Your task to perform on an android device: Open calendar and show me the third week of next month Image 0: 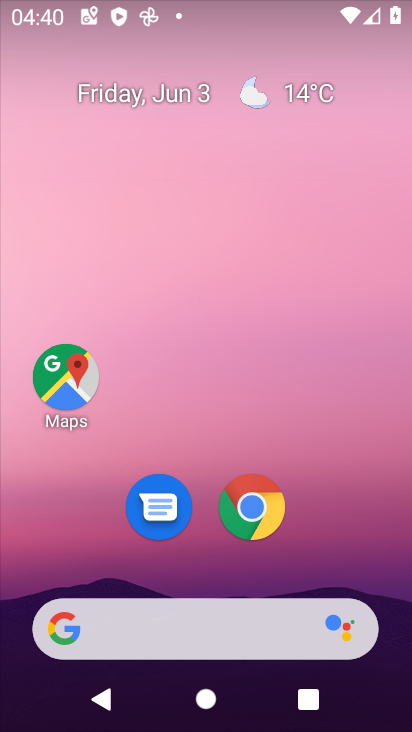
Step 0: press home button
Your task to perform on an android device: Open calendar and show me the third week of next month Image 1: 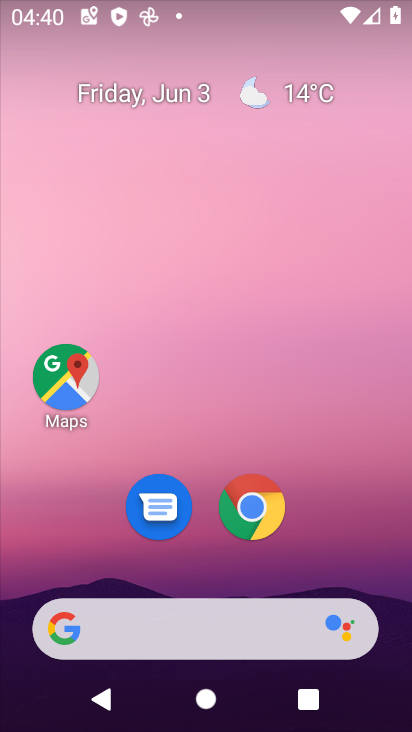
Step 1: drag from (368, 583) to (321, 89)
Your task to perform on an android device: Open calendar and show me the third week of next month Image 2: 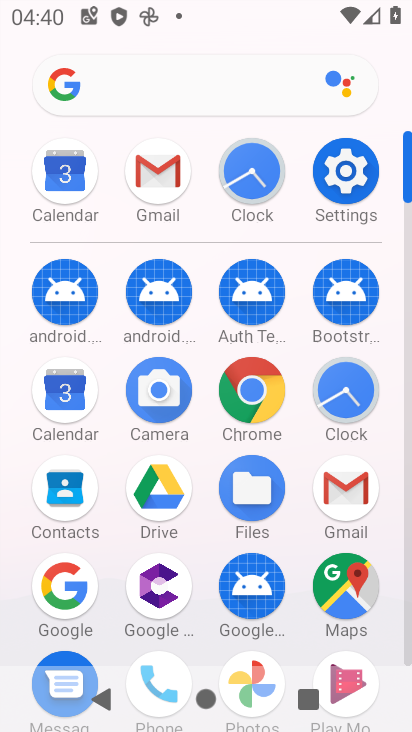
Step 2: click (67, 391)
Your task to perform on an android device: Open calendar and show me the third week of next month Image 3: 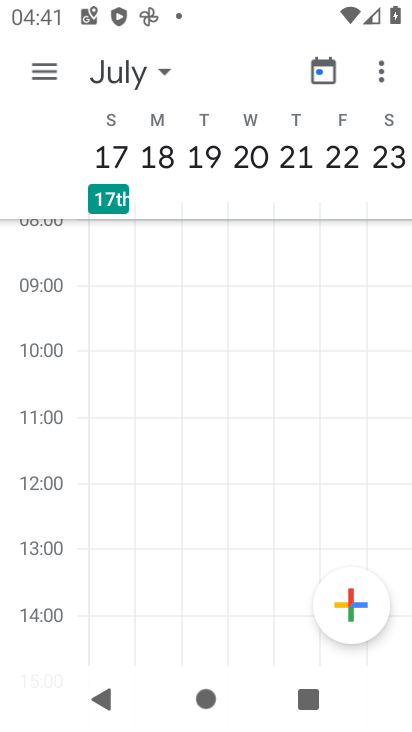
Step 3: click (40, 71)
Your task to perform on an android device: Open calendar and show me the third week of next month Image 4: 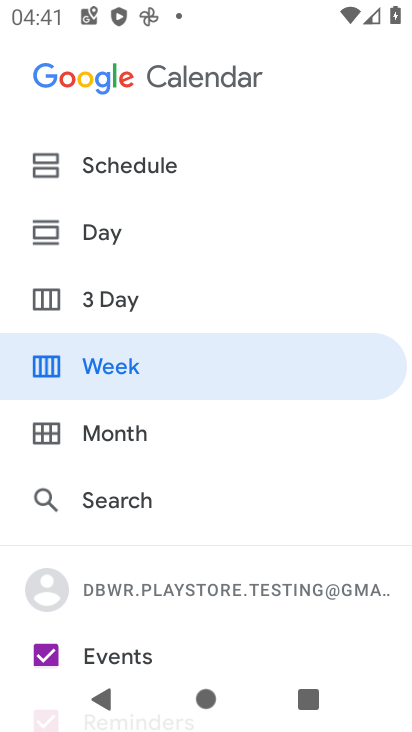
Step 4: click (140, 433)
Your task to perform on an android device: Open calendar and show me the third week of next month Image 5: 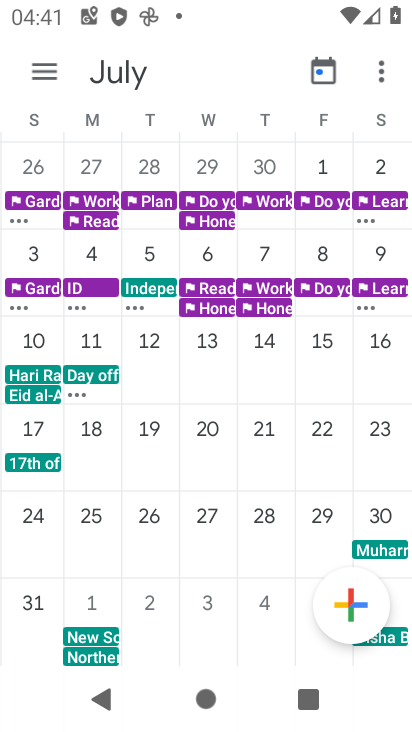
Step 5: drag from (307, 390) to (7, 373)
Your task to perform on an android device: Open calendar and show me the third week of next month Image 6: 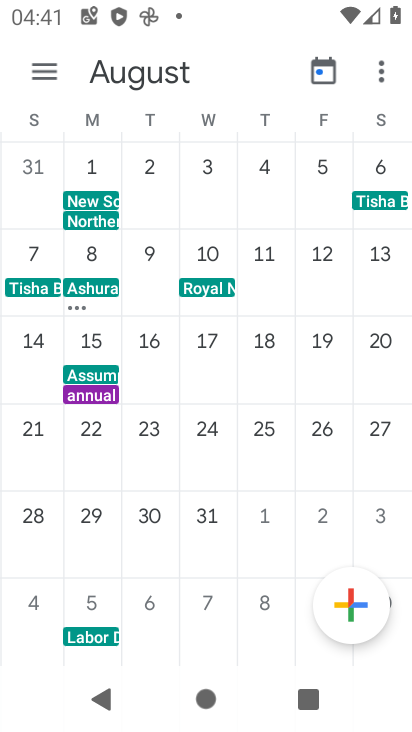
Step 6: drag from (36, 347) to (368, 341)
Your task to perform on an android device: Open calendar and show me the third week of next month Image 7: 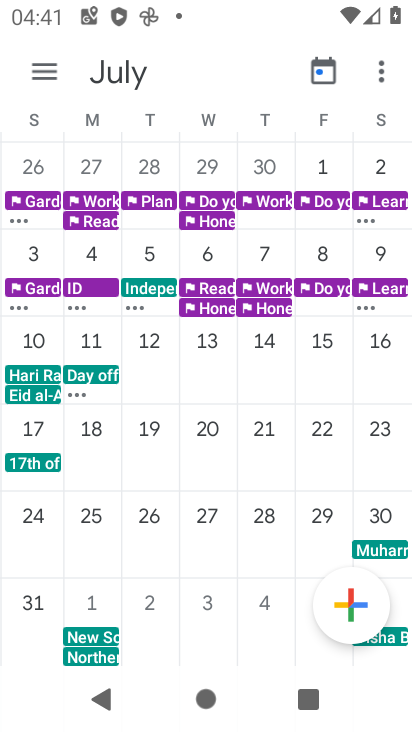
Step 7: click (25, 336)
Your task to perform on an android device: Open calendar and show me the third week of next month Image 8: 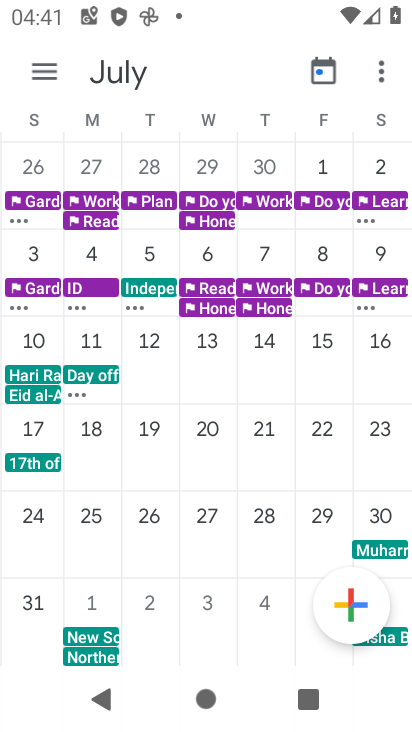
Step 8: task complete